Your task to perform on an android device: Go to Android settings Image 0: 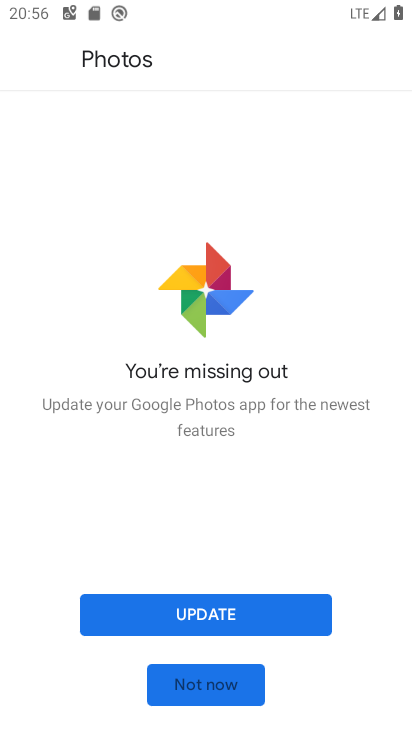
Step 0: press home button
Your task to perform on an android device: Go to Android settings Image 1: 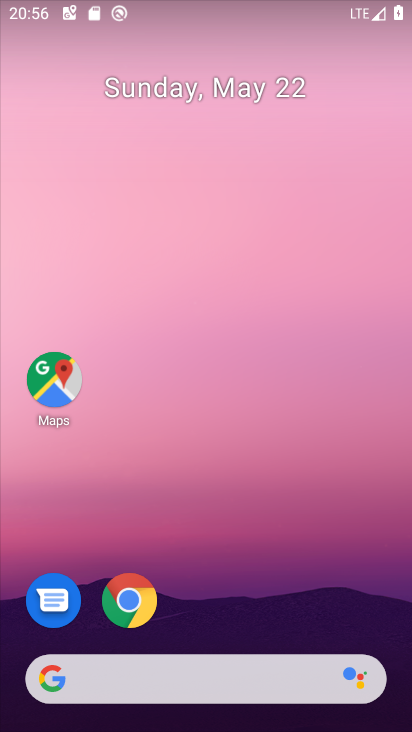
Step 1: drag from (155, 636) to (169, 340)
Your task to perform on an android device: Go to Android settings Image 2: 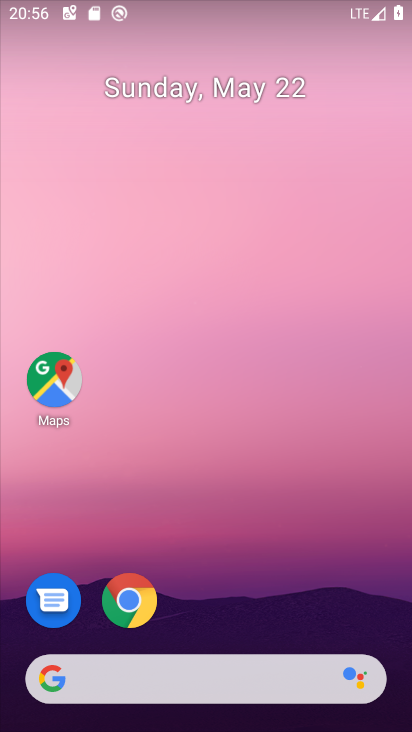
Step 2: drag from (173, 618) to (207, 216)
Your task to perform on an android device: Go to Android settings Image 3: 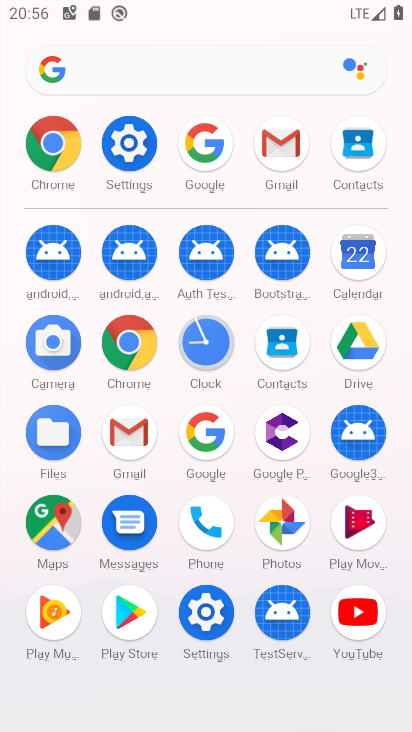
Step 3: click (116, 159)
Your task to perform on an android device: Go to Android settings Image 4: 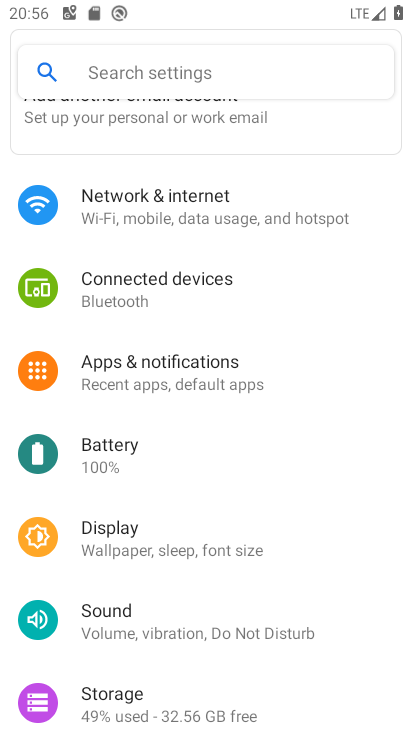
Step 4: task complete